Your task to perform on an android device: Go to ESPN.com Image 0: 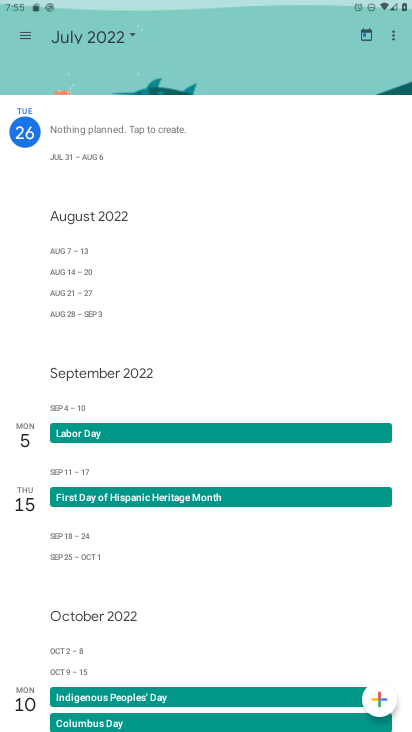
Step 0: press home button
Your task to perform on an android device: Go to ESPN.com Image 1: 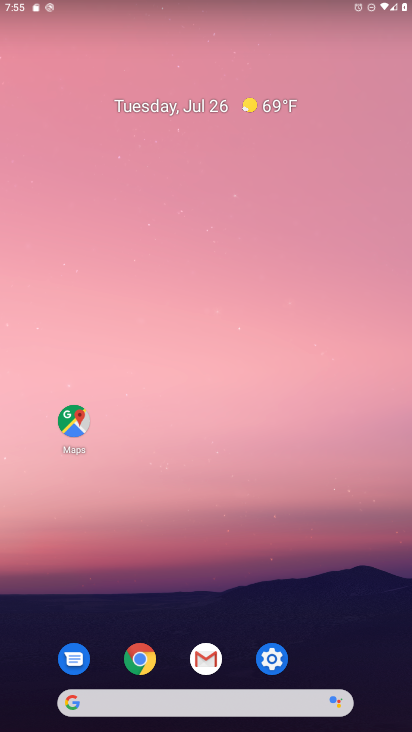
Step 1: click (136, 661)
Your task to perform on an android device: Go to ESPN.com Image 2: 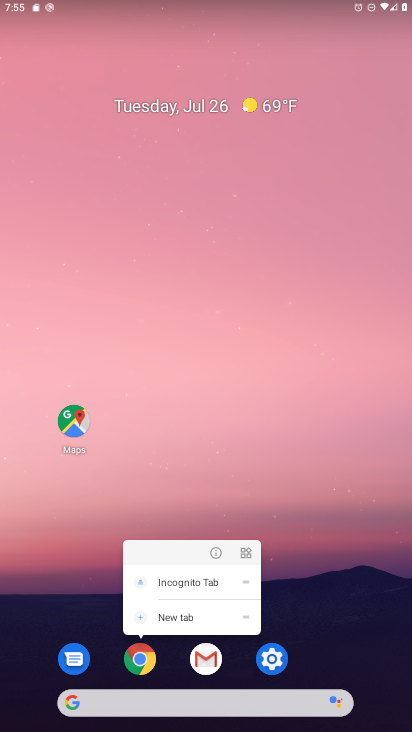
Step 2: click (142, 654)
Your task to perform on an android device: Go to ESPN.com Image 3: 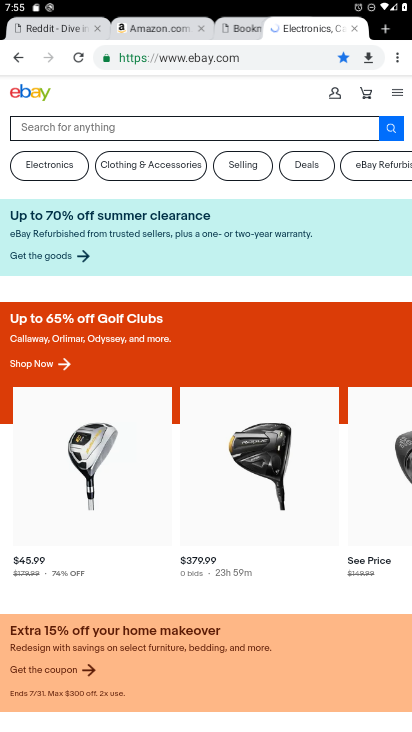
Step 3: click (384, 34)
Your task to perform on an android device: Go to ESPN.com Image 4: 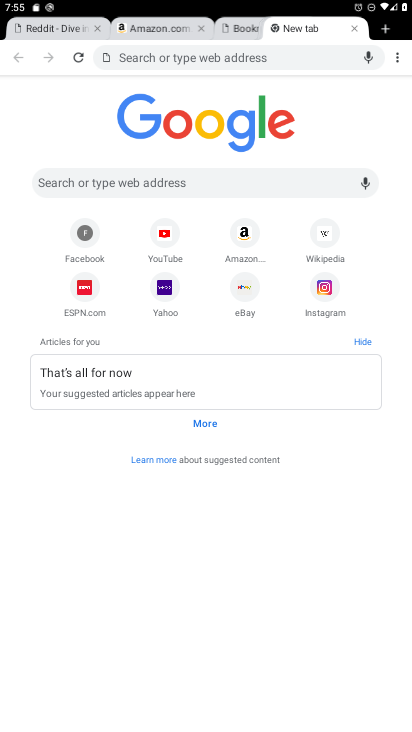
Step 4: click (83, 292)
Your task to perform on an android device: Go to ESPN.com Image 5: 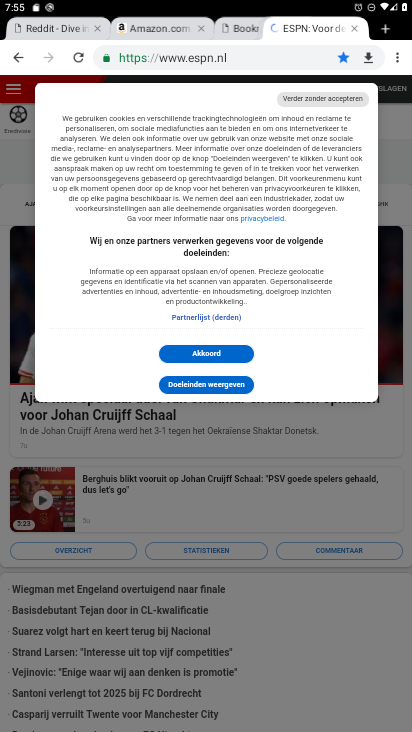
Step 5: click (209, 351)
Your task to perform on an android device: Go to ESPN.com Image 6: 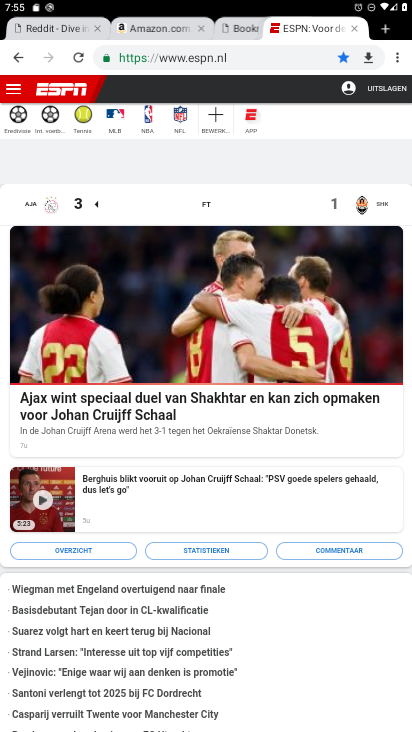
Step 6: task complete